Your task to perform on an android device: Open network settings Image 0: 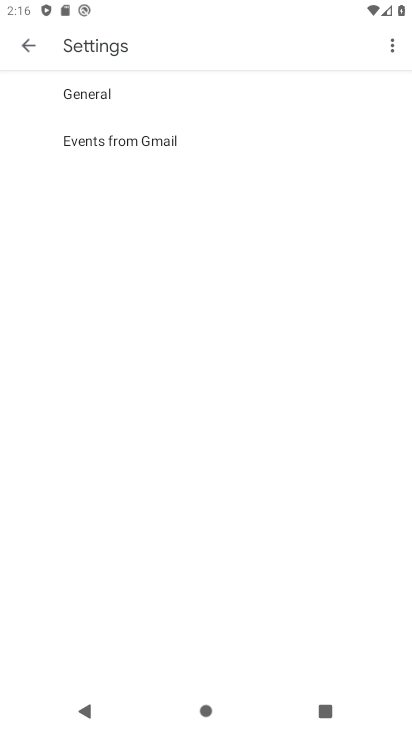
Step 0: drag from (271, 554) to (189, 171)
Your task to perform on an android device: Open network settings Image 1: 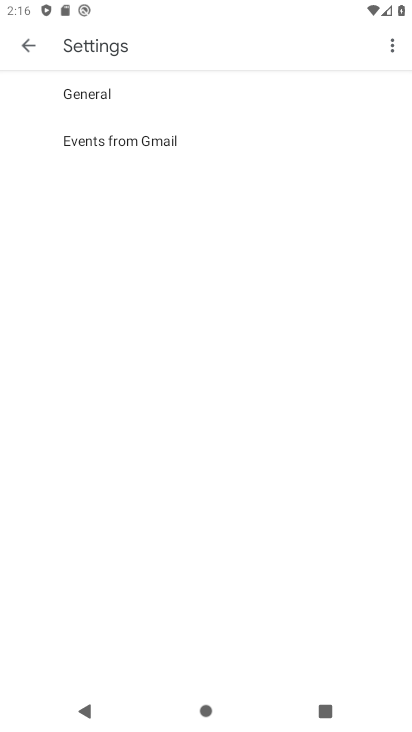
Step 1: press home button
Your task to perform on an android device: Open network settings Image 2: 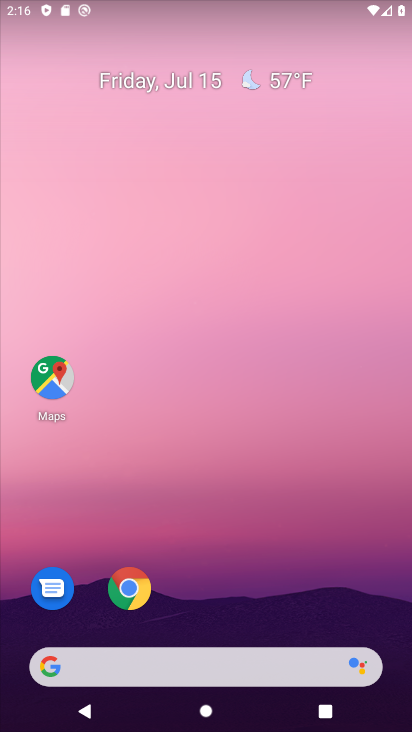
Step 2: drag from (234, 534) to (186, 28)
Your task to perform on an android device: Open network settings Image 3: 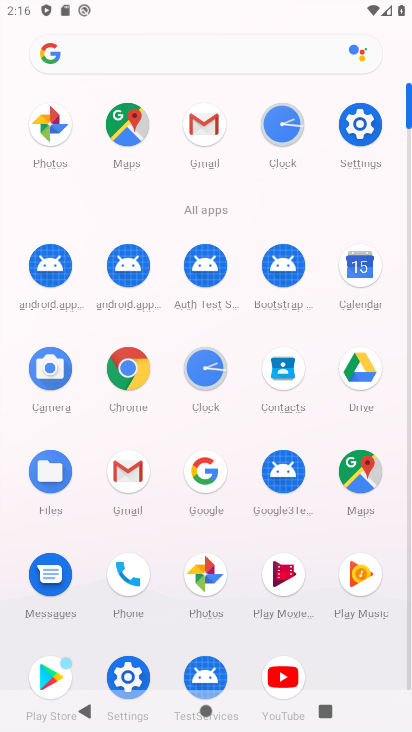
Step 3: click (361, 123)
Your task to perform on an android device: Open network settings Image 4: 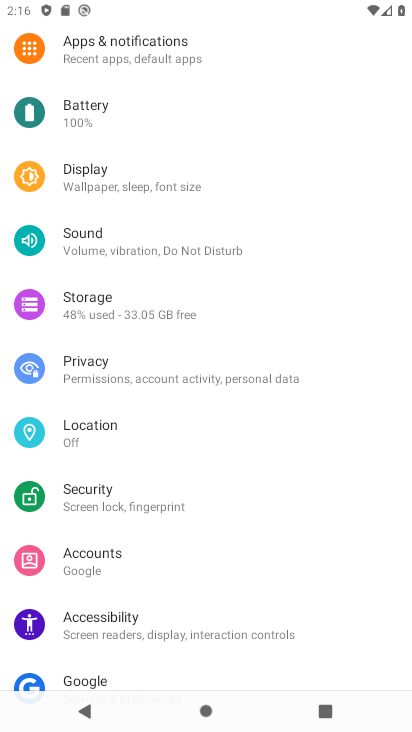
Step 4: drag from (217, 145) to (271, 561)
Your task to perform on an android device: Open network settings Image 5: 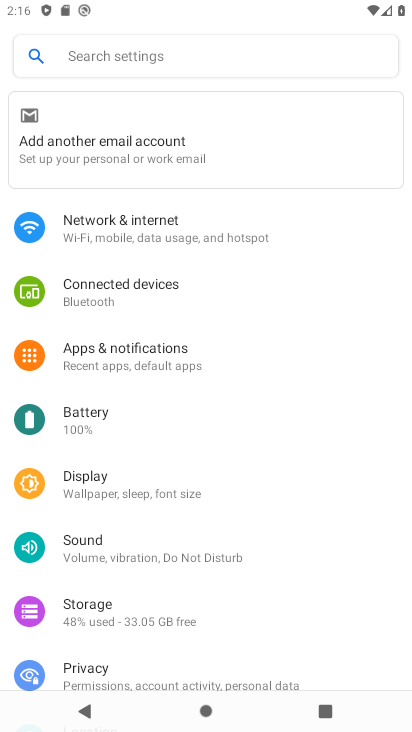
Step 5: click (142, 216)
Your task to perform on an android device: Open network settings Image 6: 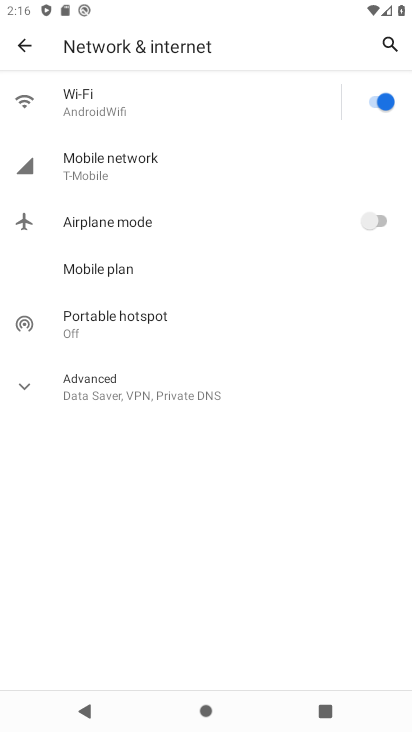
Step 6: click (123, 157)
Your task to perform on an android device: Open network settings Image 7: 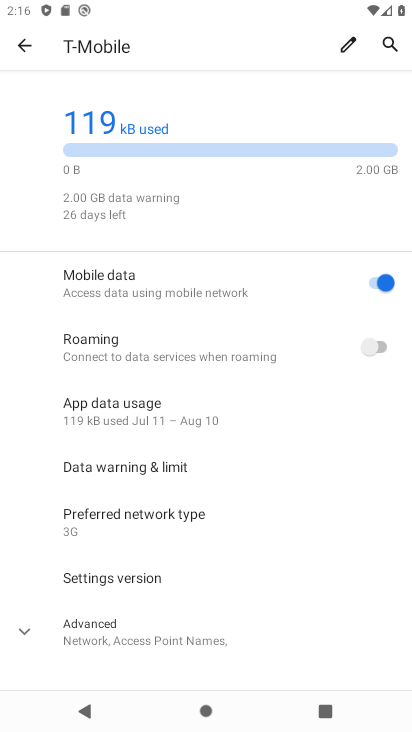
Step 7: task complete